Your task to perform on an android device: all mails in gmail Image 0: 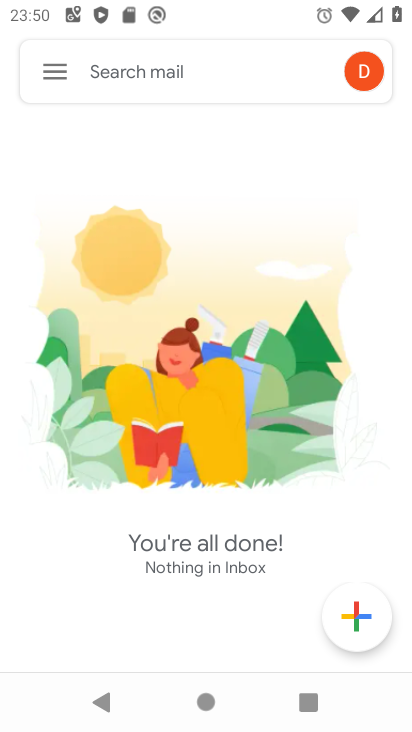
Step 0: press home button
Your task to perform on an android device: all mails in gmail Image 1: 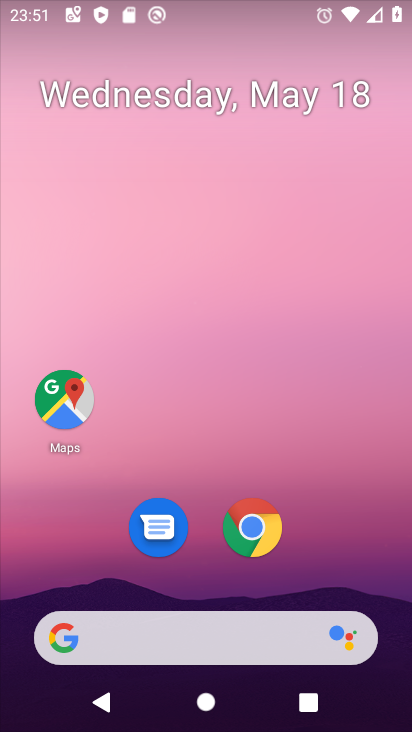
Step 1: drag from (375, 566) to (337, 174)
Your task to perform on an android device: all mails in gmail Image 2: 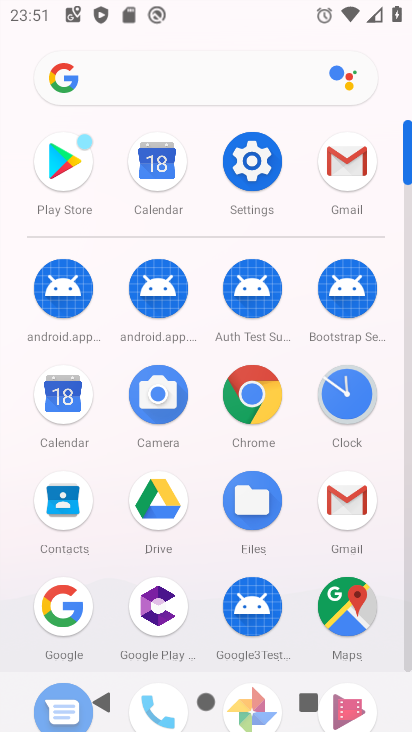
Step 2: click (342, 172)
Your task to perform on an android device: all mails in gmail Image 3: 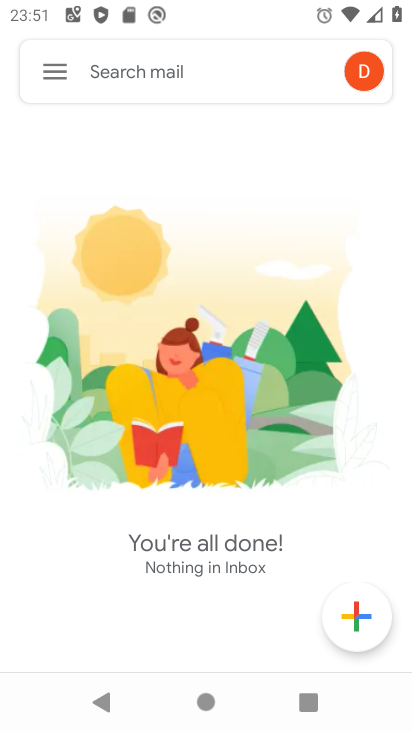
Step 3: click (42, 84)
Your task to perform on an android device: all mails in gmail Image 4: 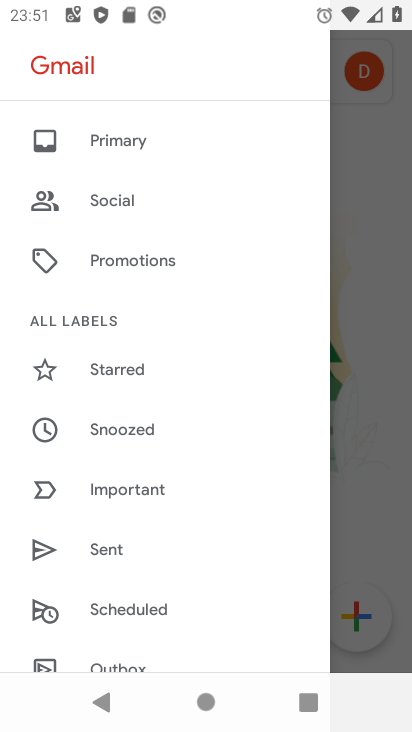
Step 4: drag from (152, 526) to (101, 337)
Your task to perform on an android device: all mails in gmail Image 5: 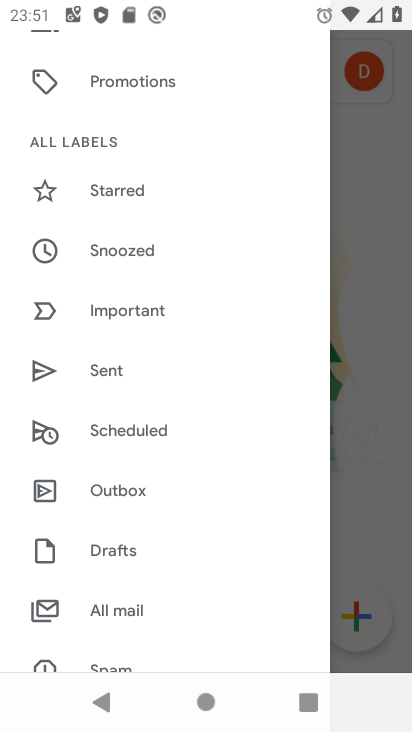
Step 5: click (90, 599)
Your task to perform on an android device: all mails in gmail Image 6: 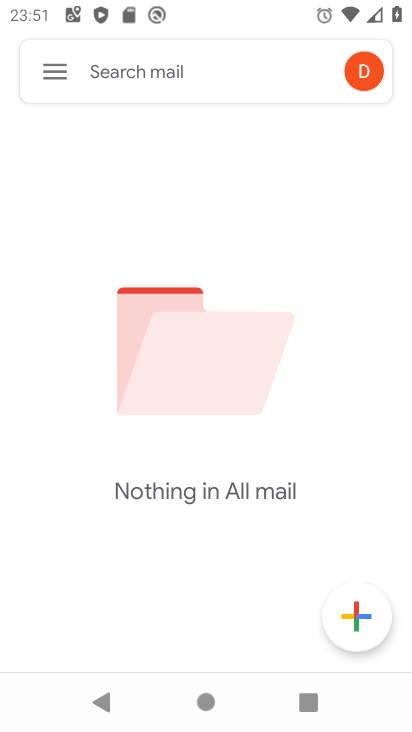
Step 6: task complete